Your task to perform on an android device: Find coffee shops on Maps Image 0: 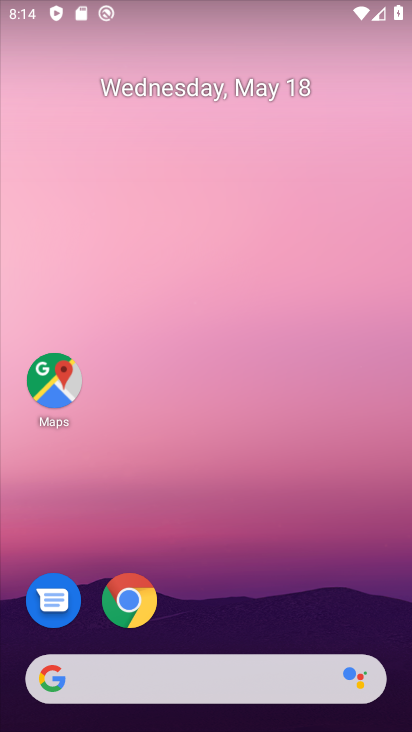
Step 0: click (70, 367)
Your task to perform on an android device: Find coffee shops on Maps Image 1: 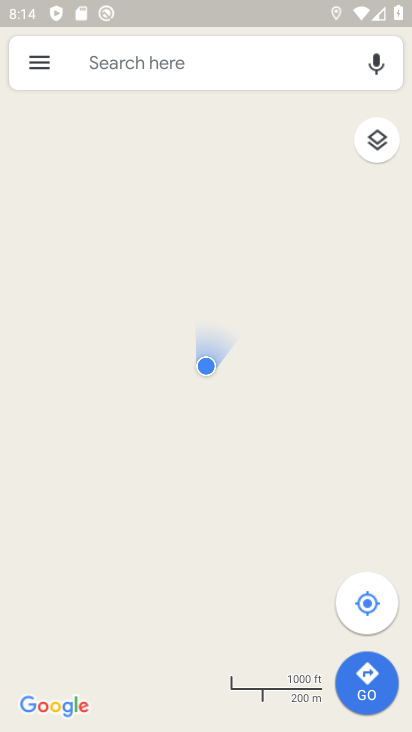
Step 1: click (146, 58)
Your task to perform on an android device: Find coffee shops on Maps Image 2: 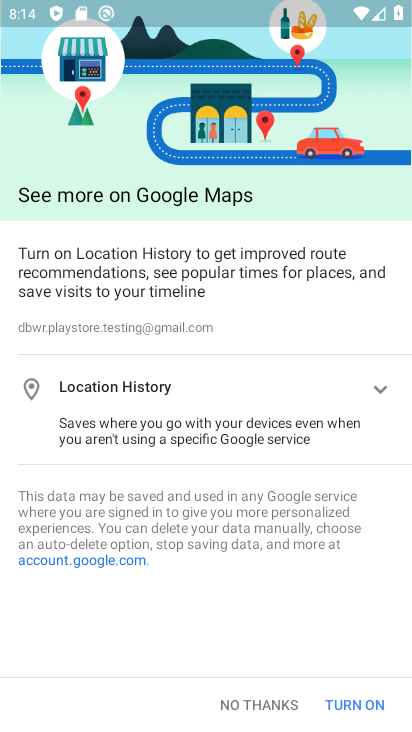
Step 2: click (258, 696)
Your task to perform on an android device: Find coffee shops on Maps Image 3: 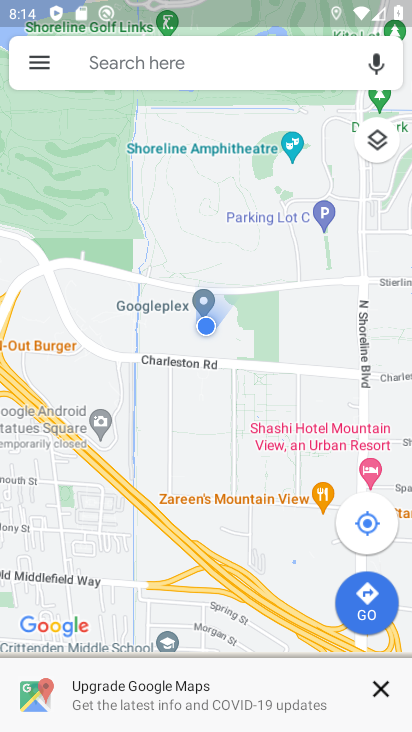
Step 3: click (130, 69)
Your task to perform on an android device: Find coffee shops on Maps Image 4: 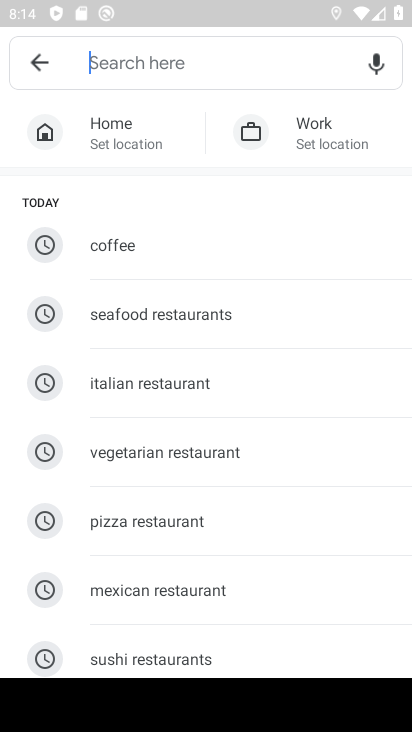
Step 4: type "coffee shops"
Your task to perform on an android device: Find coffee shops on Maps Image 5: 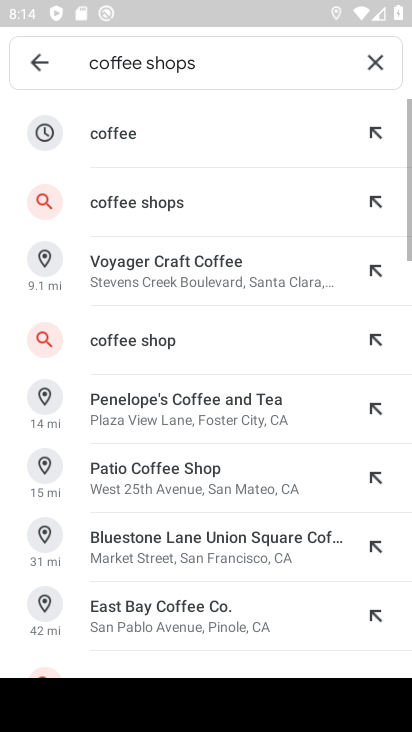
Step 5: click (187, 202)
Your task to perform on an android device: Find coffee shops on Maps Image 6: 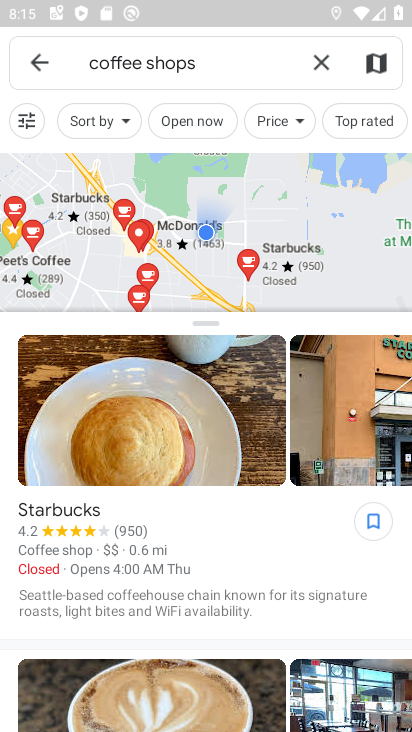
Step 6: task complete